Your task to perform on an android device: Open ESPN.com Image 0: 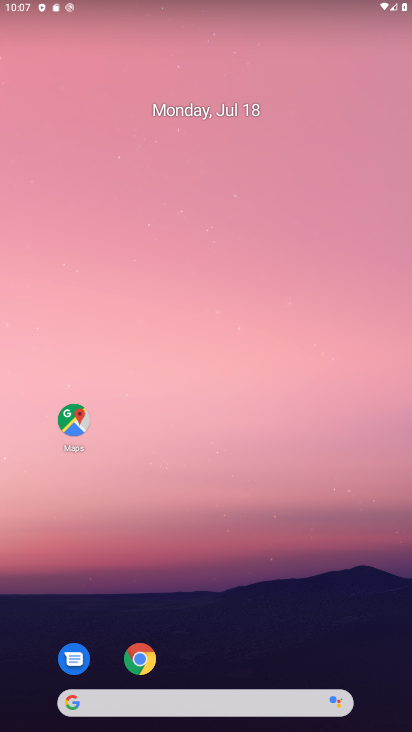
Step 0: click (248, 709)
Your task to perform on an android device: Open ESPN.com Image 1: 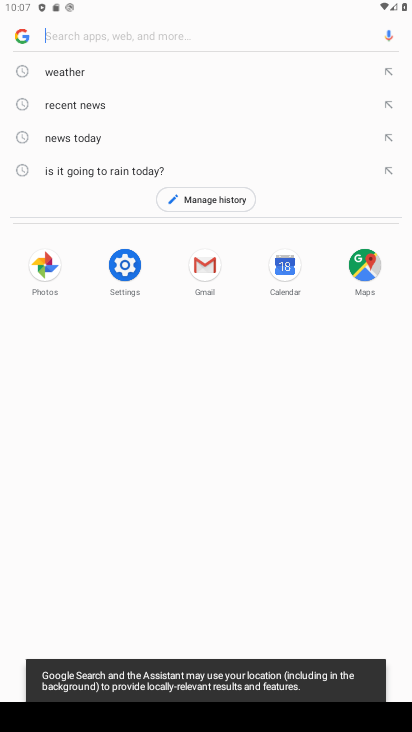
Step 1: type "ESPN.com"
Your task to perform on an android device: Open ESPN.com Image 2: 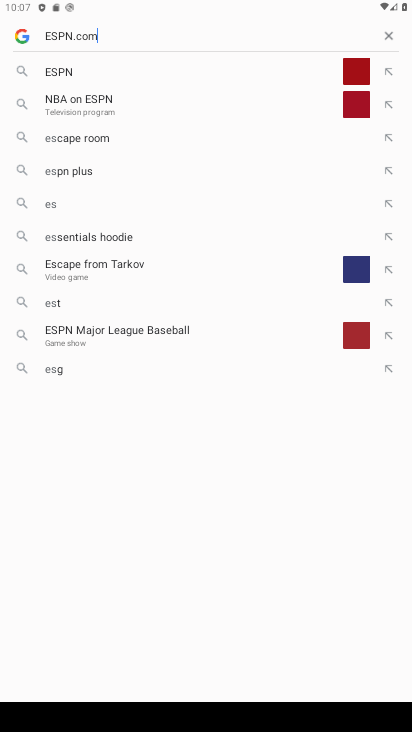
Step 2: press enter
Your task to perform on an android device: Open ESPN.com Image 3: 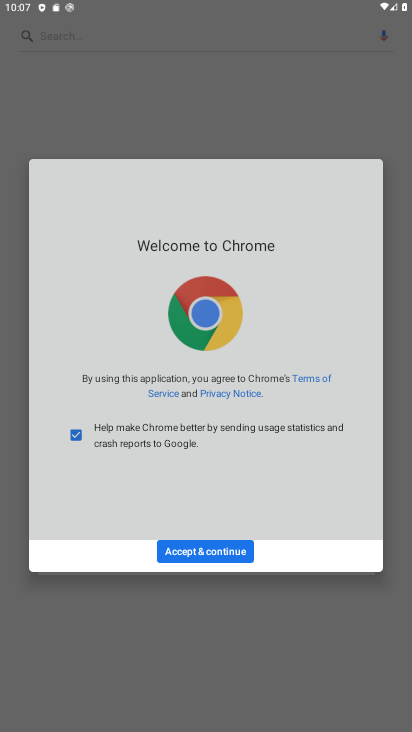
Step 3: click (228, 544)
Your task to perform on an android device: Open ESPN.com Image 4: 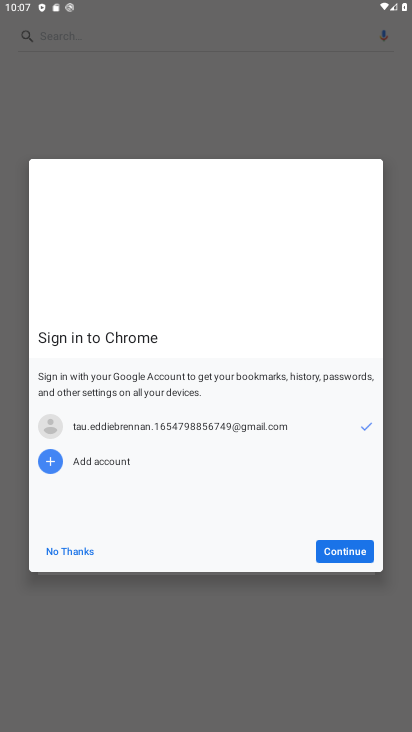
Step 4: click (333, 553)
Your task to perform on an android device: Open ESPN.com Image 5: 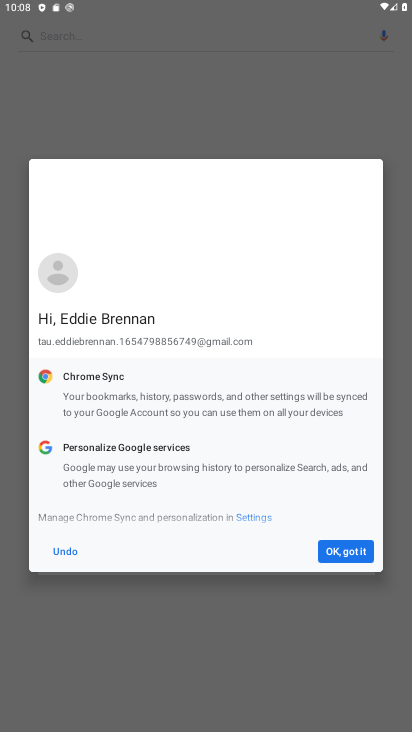
Step 5: click (333, 553)
Your task to perform on an android device: Open ESPN.com Image 6: 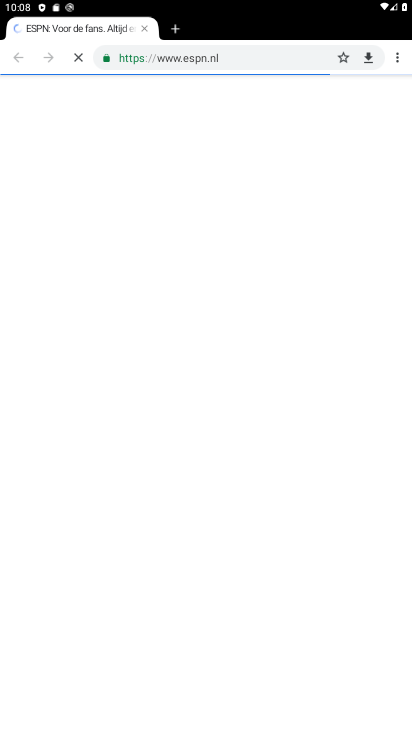
Step 6: task complete